Your task to perform on an android device: Search for "razer blade" on ebay.com, select the first entry, and add it to the cart. Image 0: 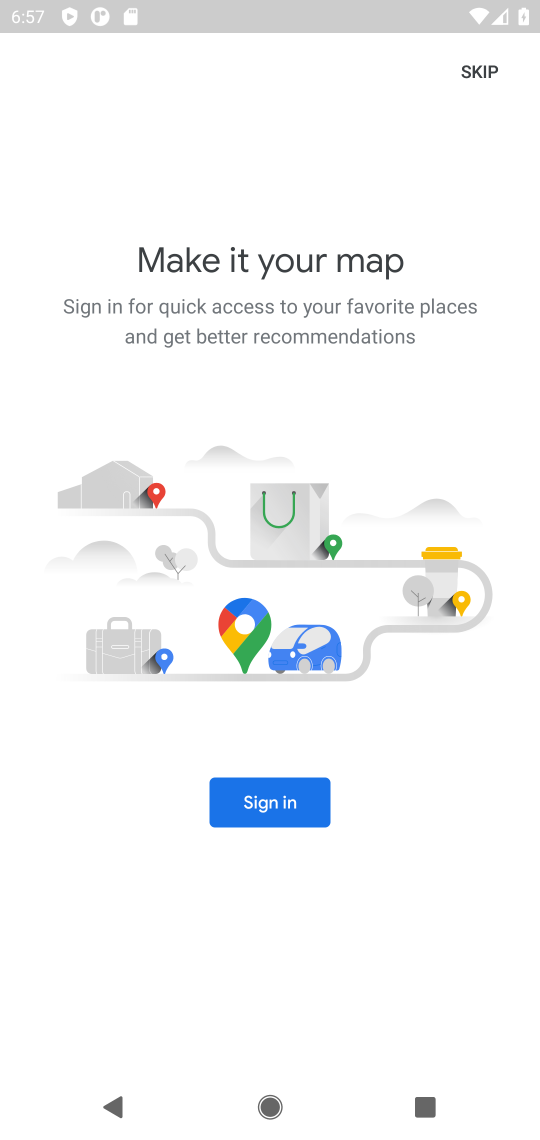
Step 0: press home button
Your task to perform on an android device: Search for "razer blade" on ebay.com, select the first entry, and add it to the cart. Image 1: 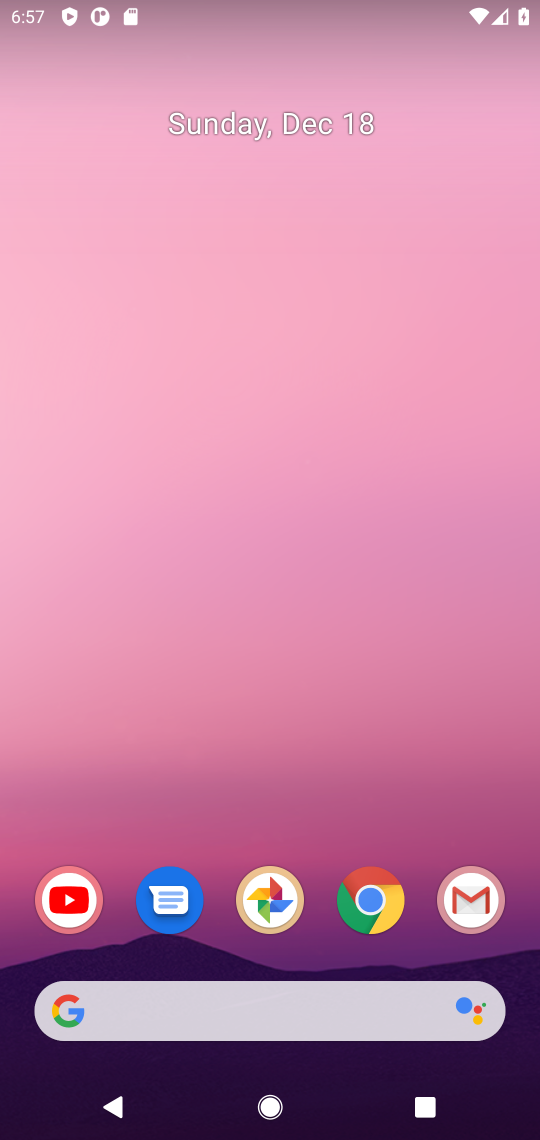
Step 1: click (369, 919)
Your task to perform on an android device: Search for "razer blade" on ebay.com, select the first entry, and add it to the cart. Image 2: 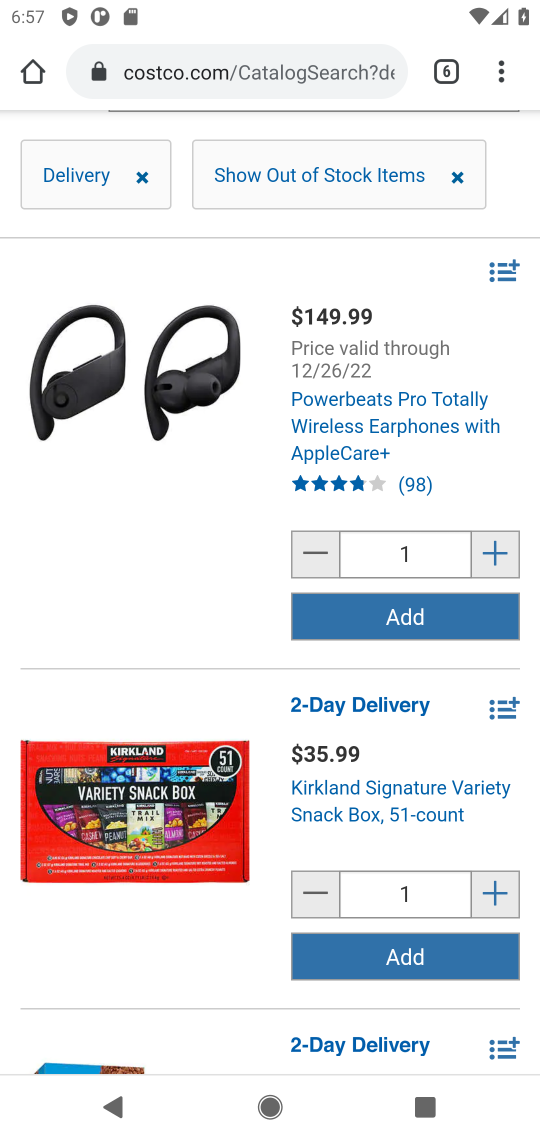
Step 2: click (441, 73)
Your task to perform on an android device: Search for "razer blade" on ebay.com, select the first entry, and add it to the cart. Image 3: 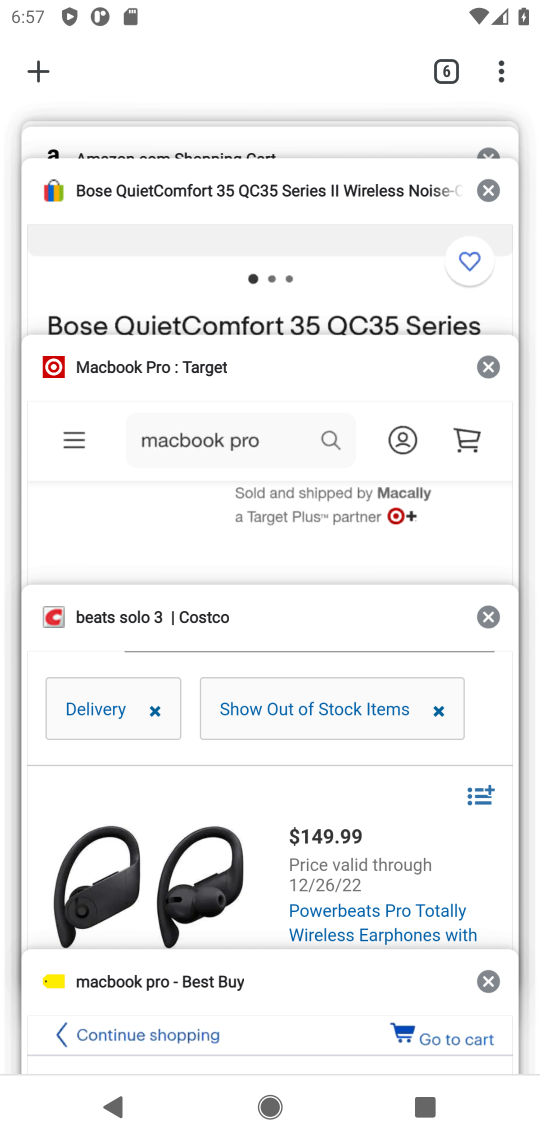
Step 3: click (233, 213)
Your task to perform on an android device: Search for "razer blade" on ebay.com, select the first entry, and add it to the cart. Image 4: 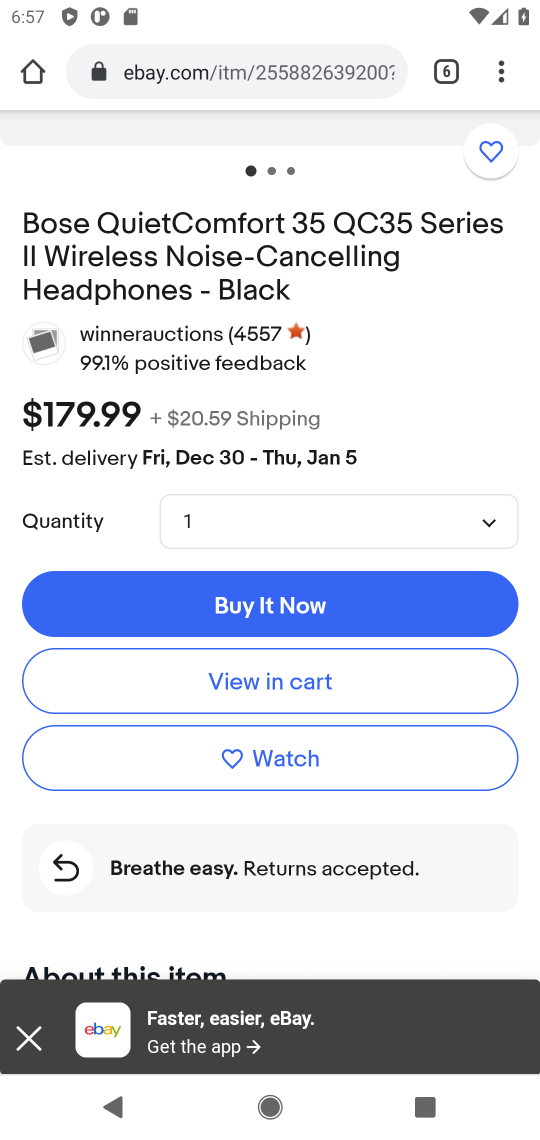
Step 4: drag from (433, 124) to (531, 1048)
Your task to perform on an android device: Search for "razer blade" on ebay.com, select the first entry, and add it to the cart. Image 5: 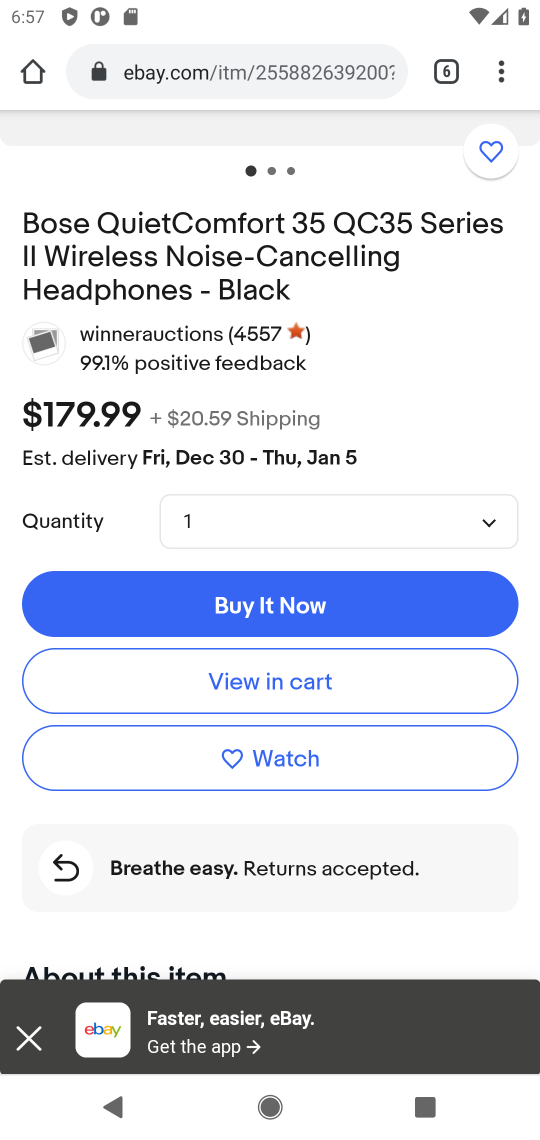
Step 5: drag from (353, 190) to (388, 798)
Your task to perform on an android device: Search for "razer blade" on ebay.com, select the first entry, and add it to the cart. Image 6: 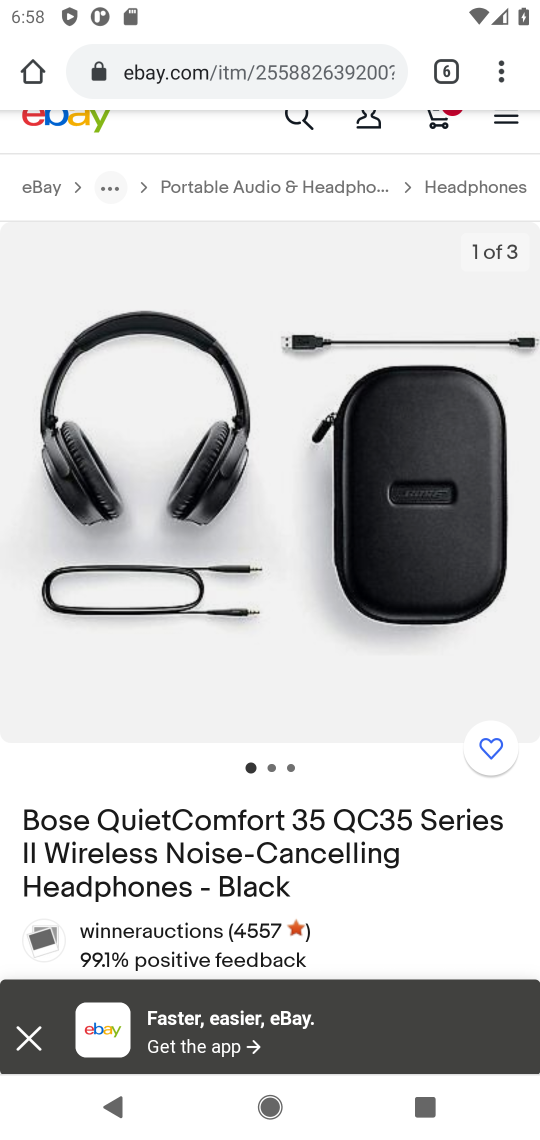
Step 6: drag from (432, 170) to (482, 963)
Your task to perform on an android device: Search for "razer blade" on ebay.com, select the first entry, and add it to the cart. Image 7: 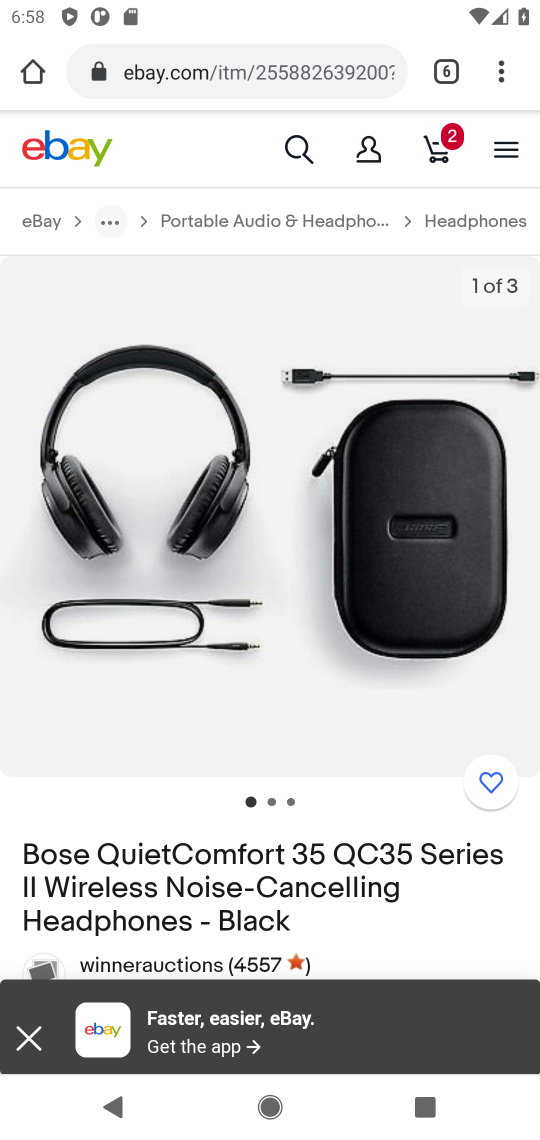
Step 7: click (295, 147)
Your task to perform on an android device: Search for "razer blade" on ebay.com, select the first entry, and add it to the cart. Image 8: 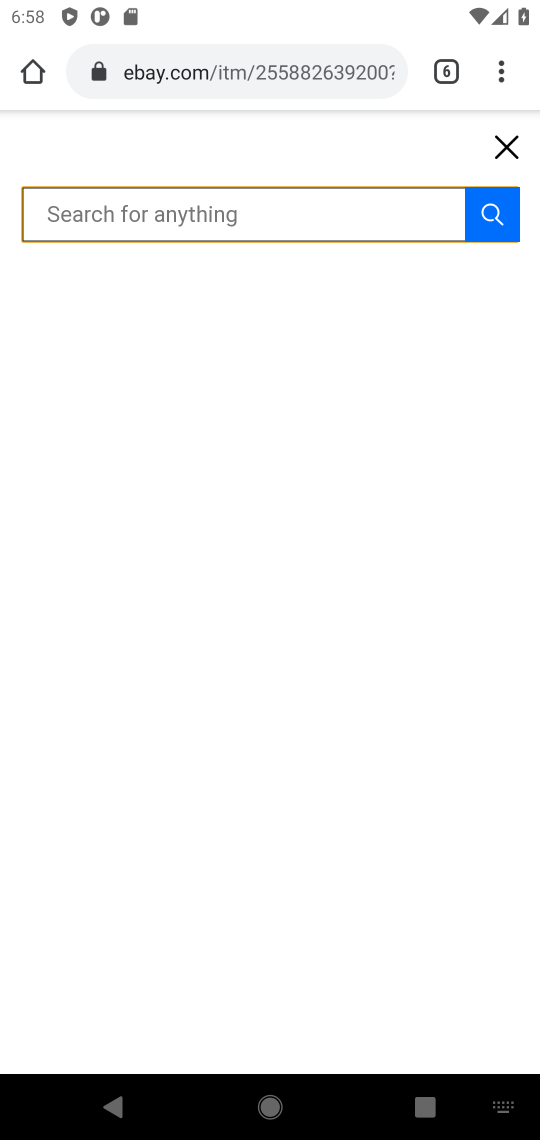
Step 8: type "razer blade"
Your task to perform on an android device: Search for "razer blade" on ebay.com, select the first entry, and add it to the cart. Image 9: 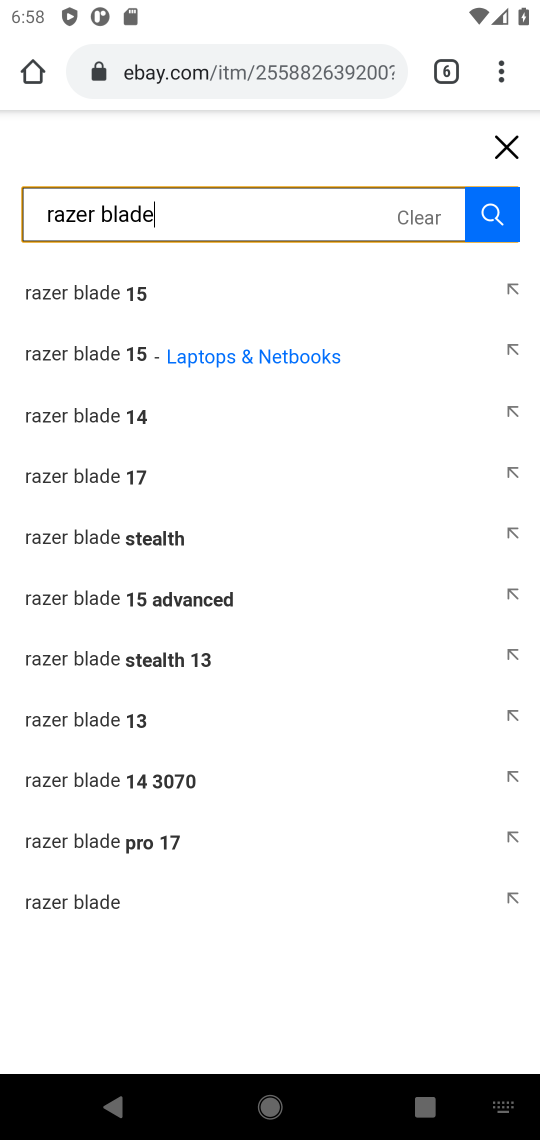
Step 9: click (116, 343)
Your task to perform on an android device: Search for "razer blade" on ebay.com, select the first entry, and add it to the cart. Image 10: 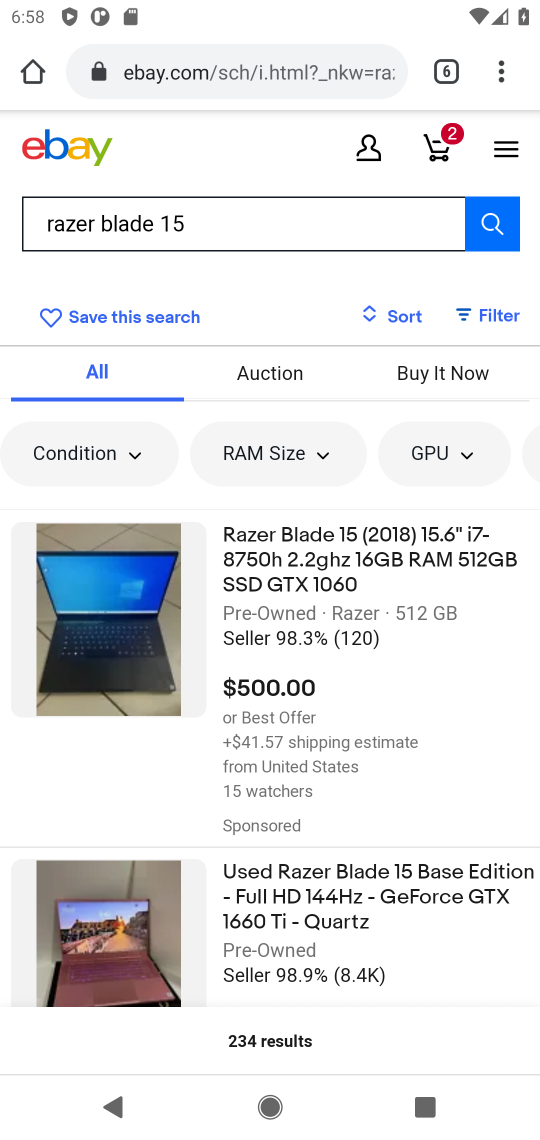
Step 10: click (328, 563)
Your task to perform on an android device: Search for "razer blade" on ebay.com, select the first entry, and add it to the cart. Image 11: 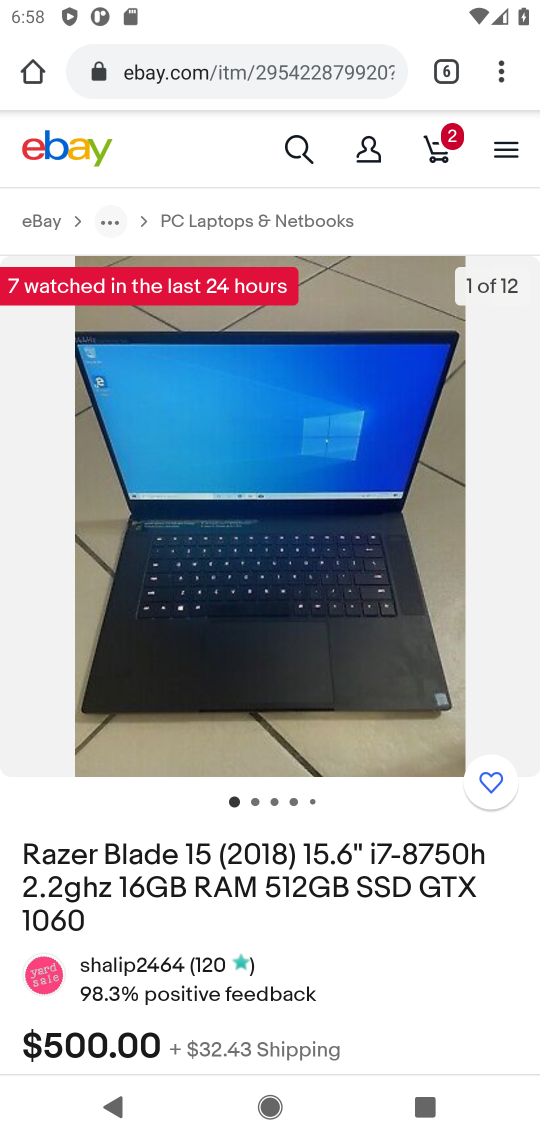
Step 11: drag from (429, 943) to (494, 380)
Your task to perform on an android device: Search for "razer blade" on ebay.com, select the first entry, and add it to the cart. Image 12: 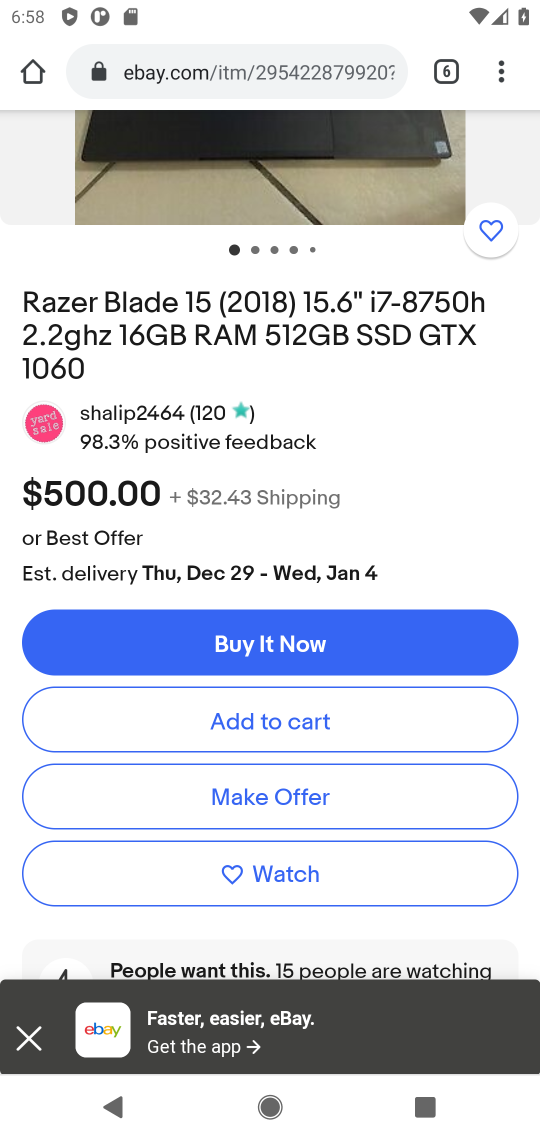
Step 12: click (306, 727)
Your task to perform on an android device: Search for "razer blade" on ebay.com, select the first entry, and add it to the cart. Image 13: 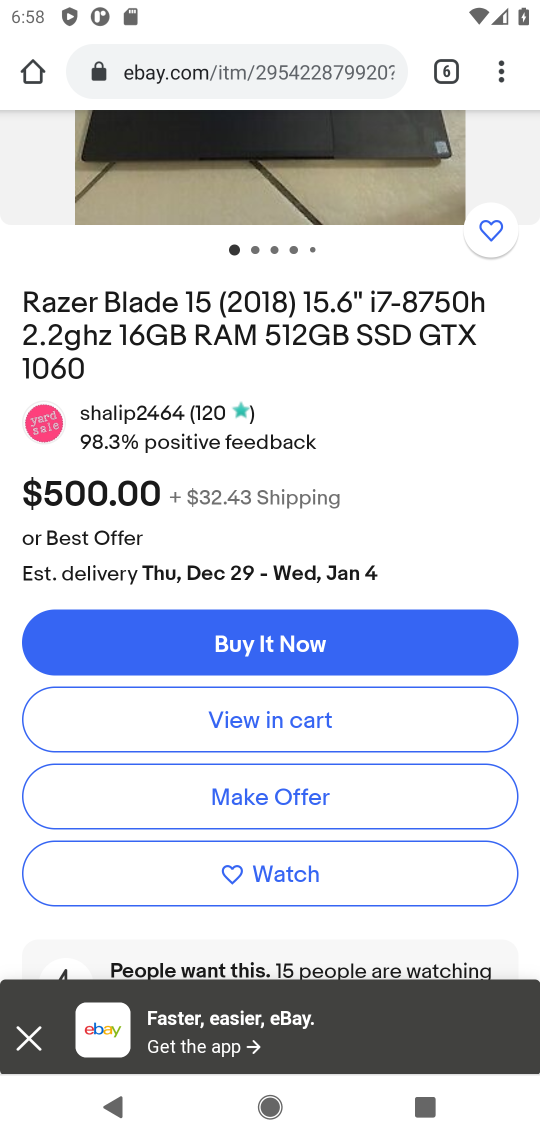
Step 13: task complete